Your task to perform on an android device: What's on my calendar today? Image 0: 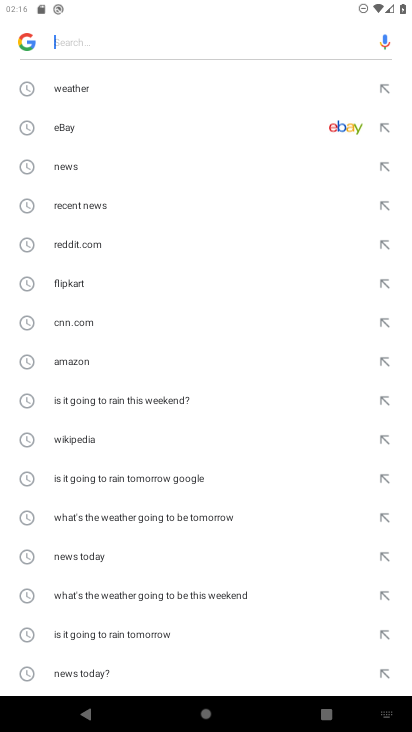
Step 0: press home button
Your task to perform on an android device: What's on my calendar today? Image 1: 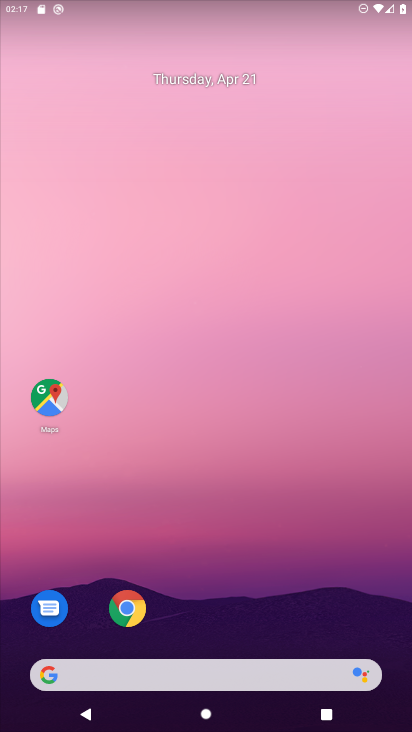
Step 1: drag from (247, 571) to (288, 176)
Your task to perform on an android device: What's on my calendar today? Image 2: 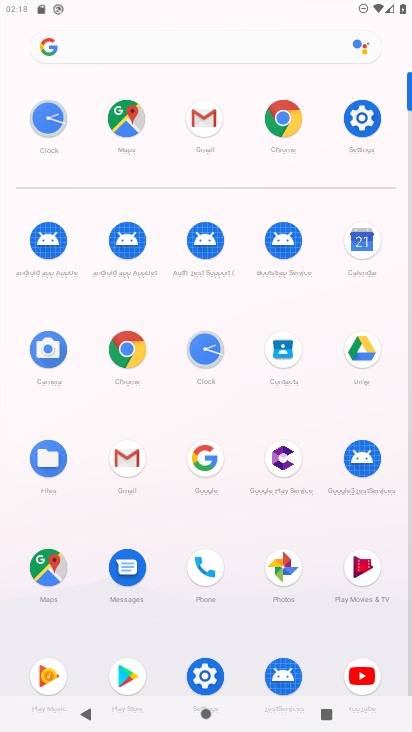
Step 2: click (355, 241)
Your task to perform on an android device: What's on my calendar today? Image 3: 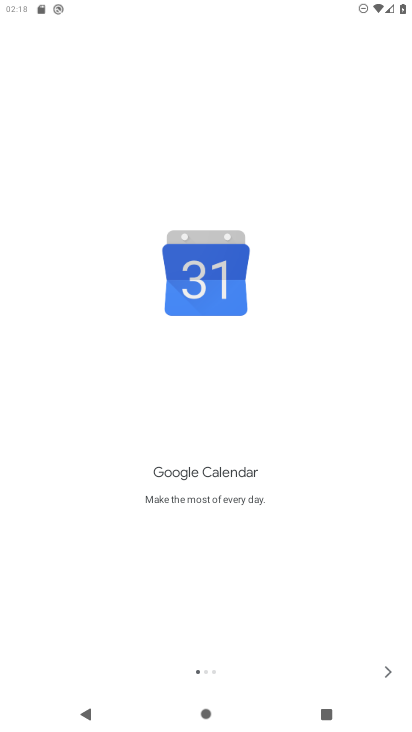
Step 3: click (388, 673)
Your task to perform on an android device: What's on my calendar today? Image 4: 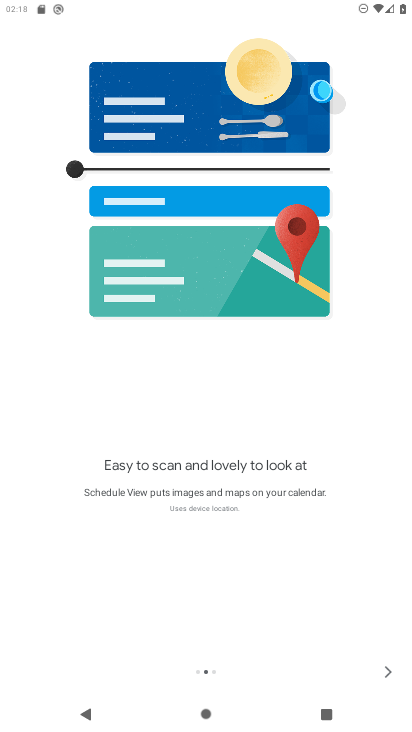
Step 4: click (376, 682)
Your task to perform on an android device: What's on my calendar today? Image 5: 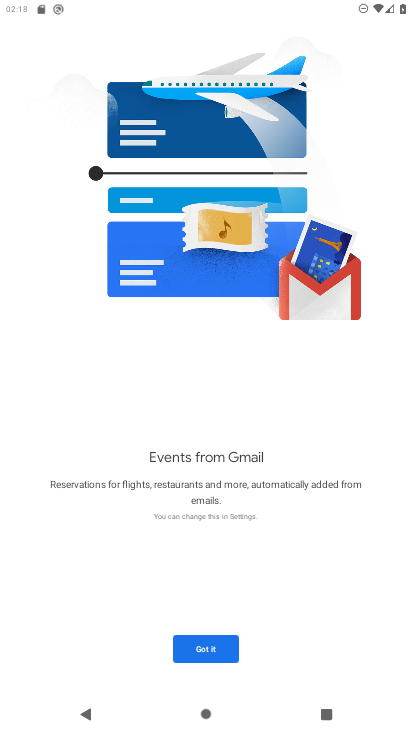
Step 5: click (195, 637)
Your task to perform on an android device: What's on my calendar today? Image 6: 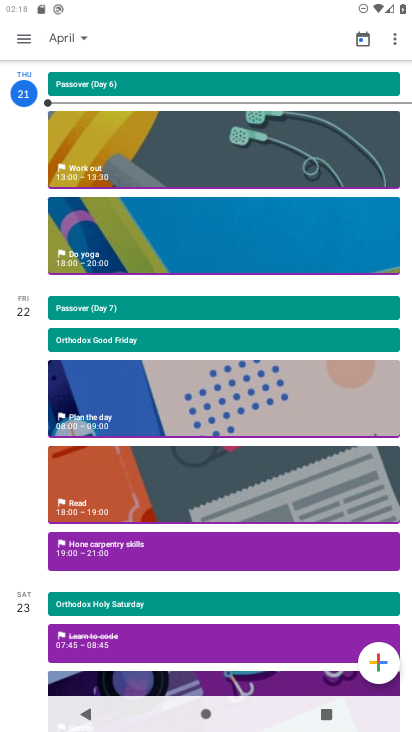
Step 6: click (31, 38)
Your task to perform on an android device: What's on my calendar today? Image 7: 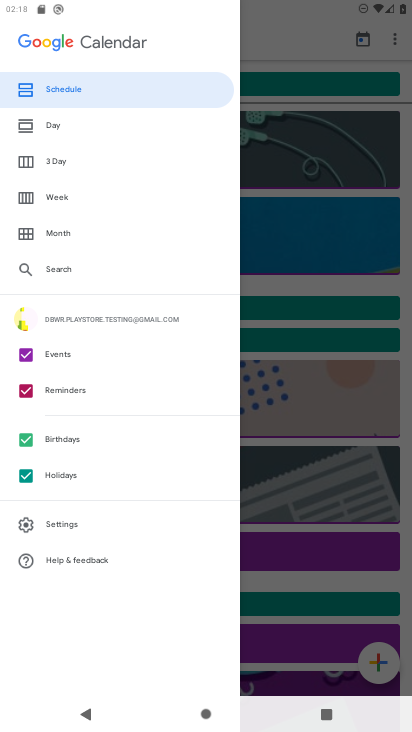
Step 7: click (64, 231)
Your task to perform on an android device: What's on my calendar today? Image 8: 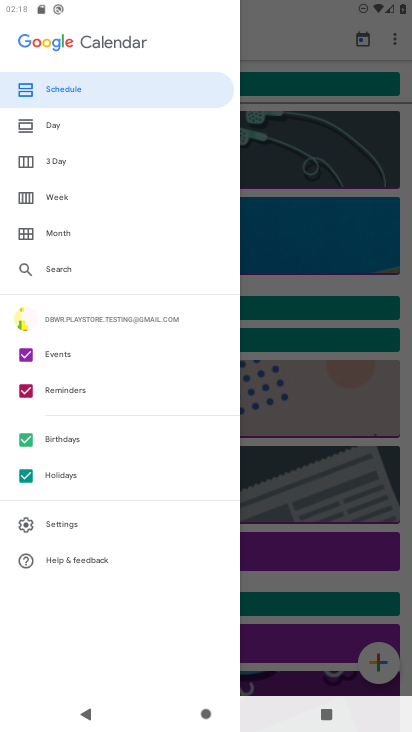
Step 8: click (67, 229)
Your task to perform on an android device: What's on my calendar today? Image 9: 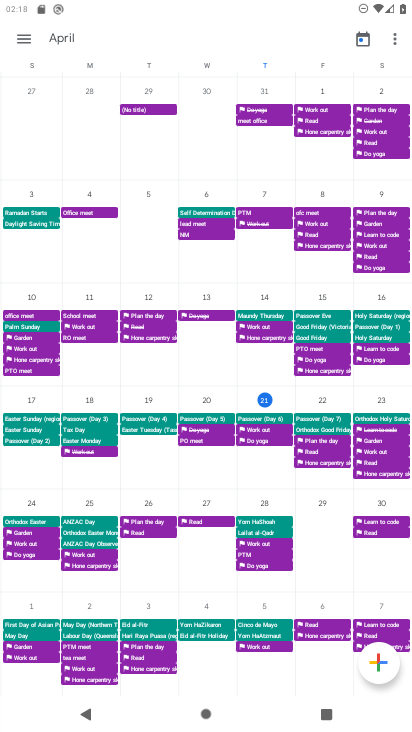
Step 9: click (255, 394)
Your task to perform on an android device: What's on my calendar today? Image 10: 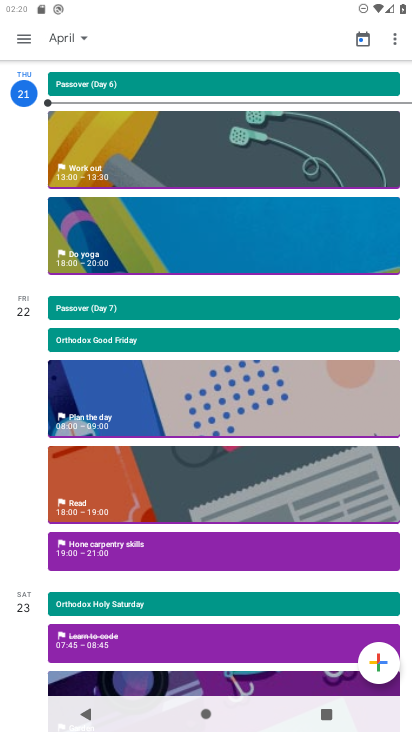
Step 10: task complete